Your task to perform on an android device: Search for seafood restaurants on Google Maps Image 0: 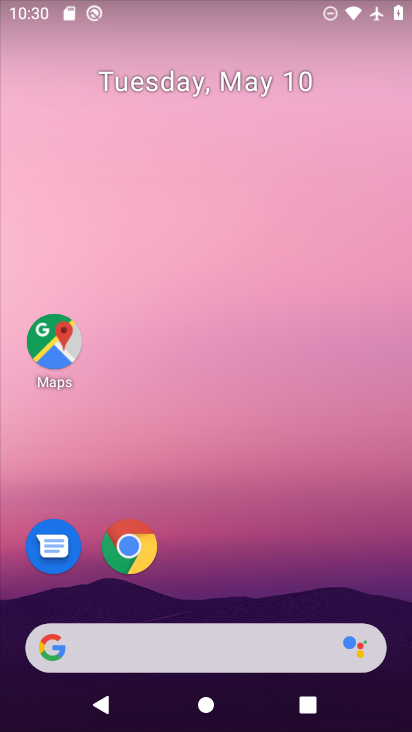
Step 0: drag from (303, 546) to (287, 128)
Your task to perform on an android device: Search for seafood restaurants on Google Maps Image 1: 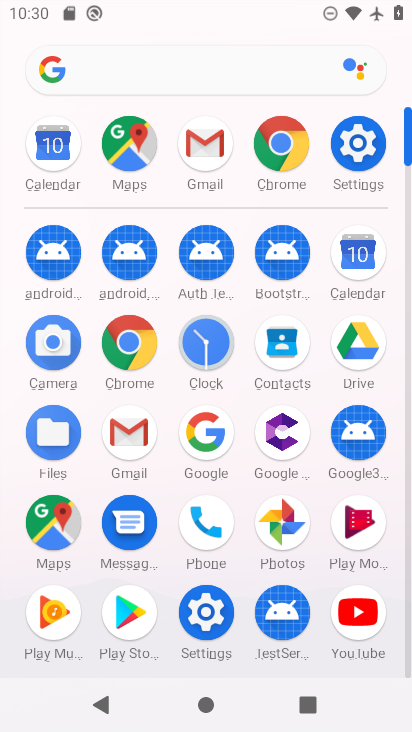
Step 1: click (135, 146)
Your task to perform on an android device: Search for seafood restaurants on Google Maps Image 2: 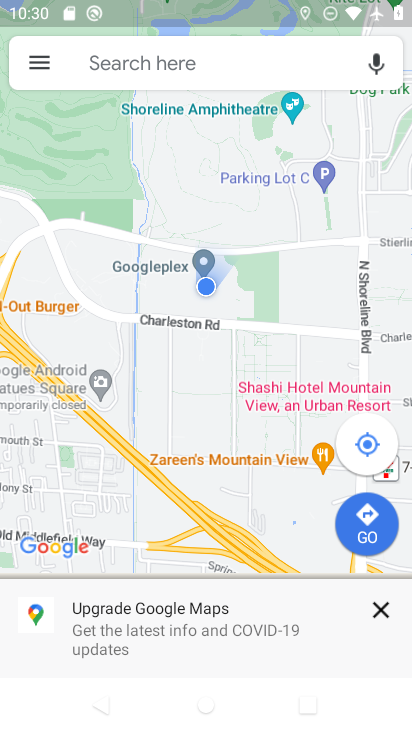
Step 2: click (206, 55)
Your task to perform on an android device: Search for seafood restaurants on Google Maps Image 3: 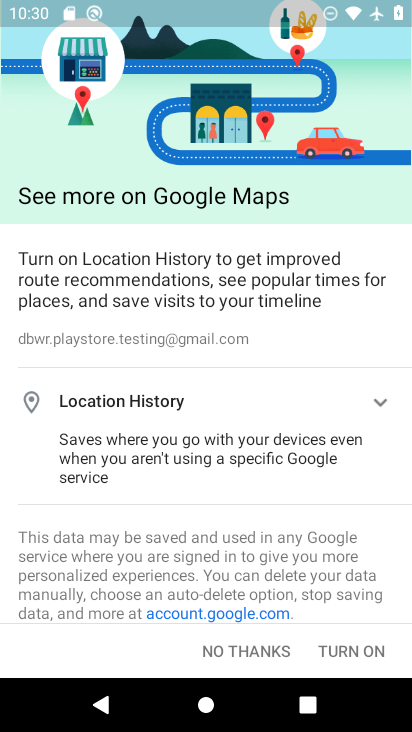
Step 3: click (276, 658)
Your task to perform on an android device: Search for seafood restaurants on Google Maps Image 4: 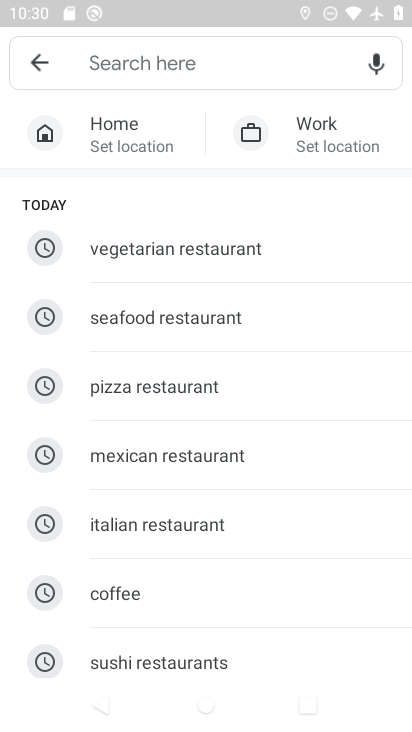
Step 4: click (200, 73)
Your task to perform on an android device: Search for seafood restaurants on Google Maps Image 5: 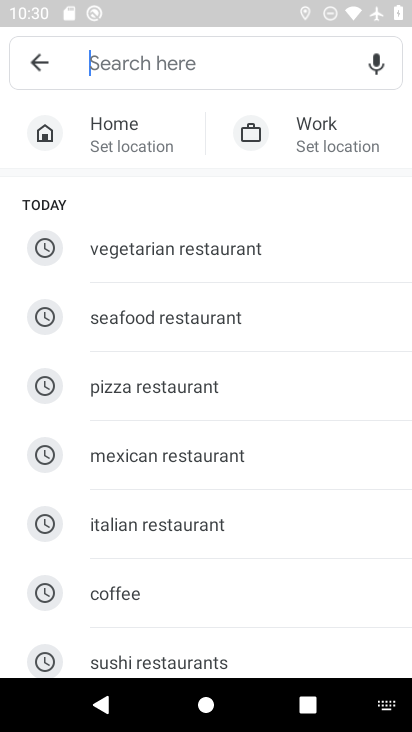
Step 5: type "seafood restaurants"
Your task to perform on an android device: Search for seafood restaurants on Google Maps Image 6: 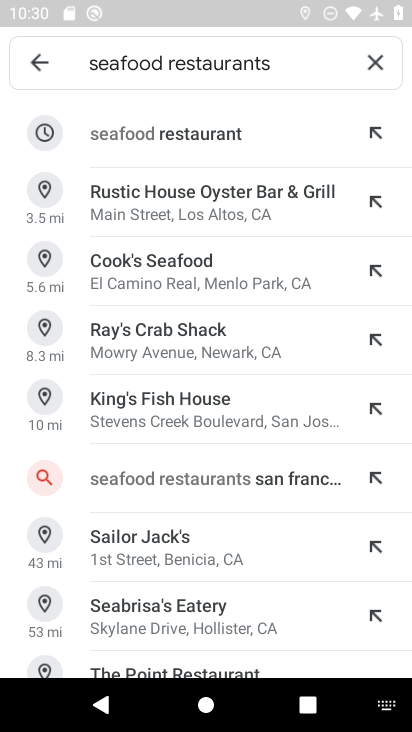
Step 6: press enter
Your task to perform on an android device: Search for seafood restaurants on Google Maps Image 7: 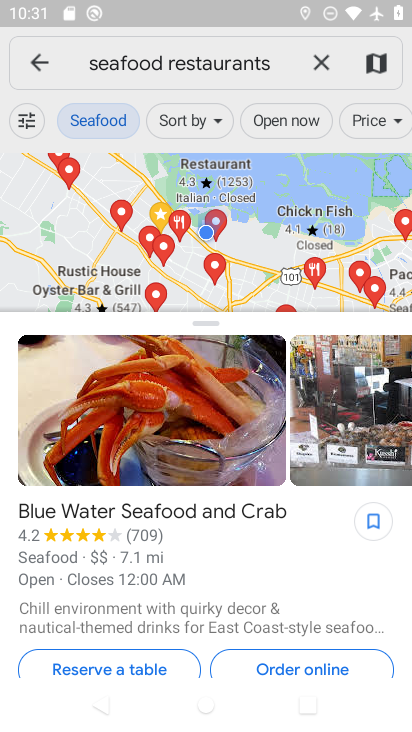
Step 7: task complete